Your task to perform on an android device: Go to sound settings Image 0: 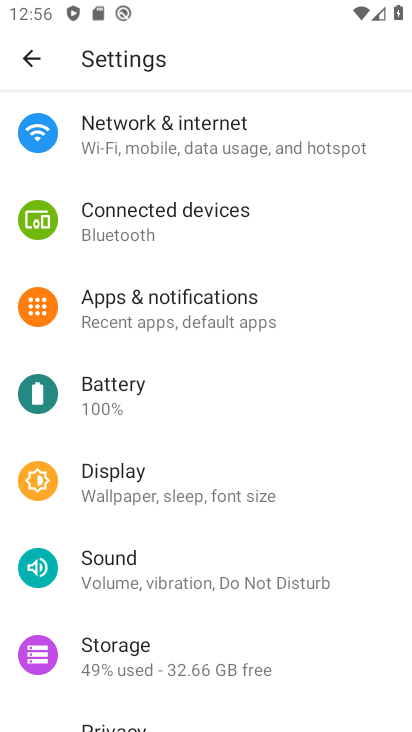
Step 0: click (187, 574)
Your task to perform on an android device: Go to sound settings Image 1: 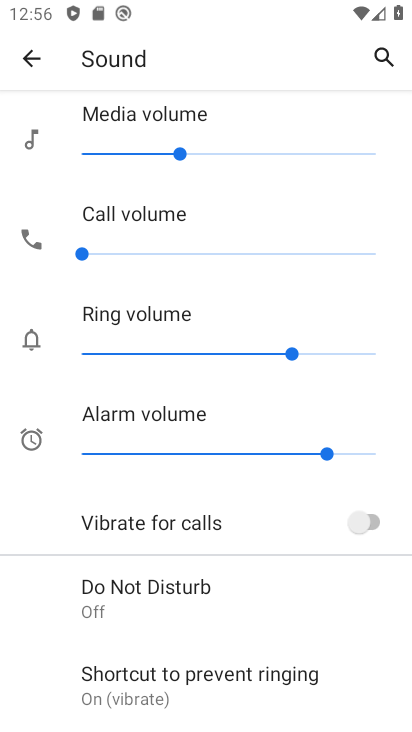
Step 1: task complete